Your task to perform on an android device: turn on airplane mode Image 0: 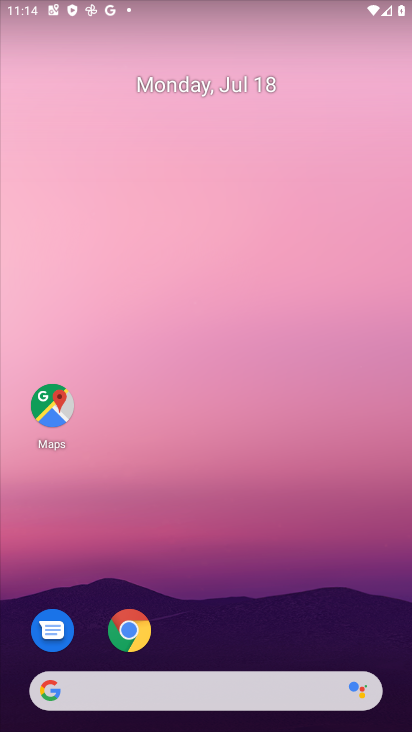
Step 0: drag from (273, 10) to (307, 606)
Your task to perform on an android device: turn on airplane mode Image 1: 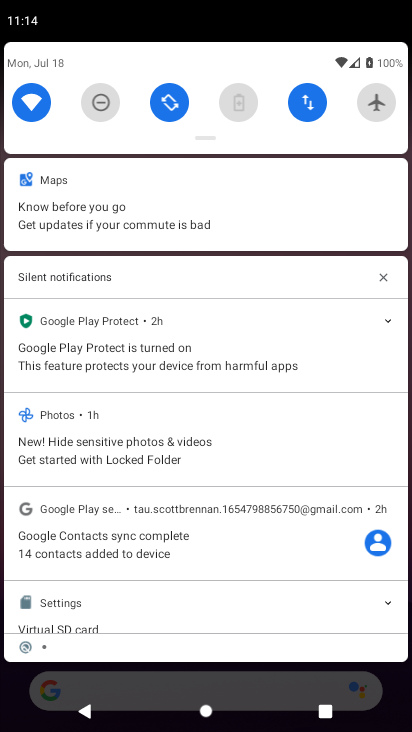
Step 1: click (377, 103)
Your task to perform on an android device: turn on airplane mode Image 2: 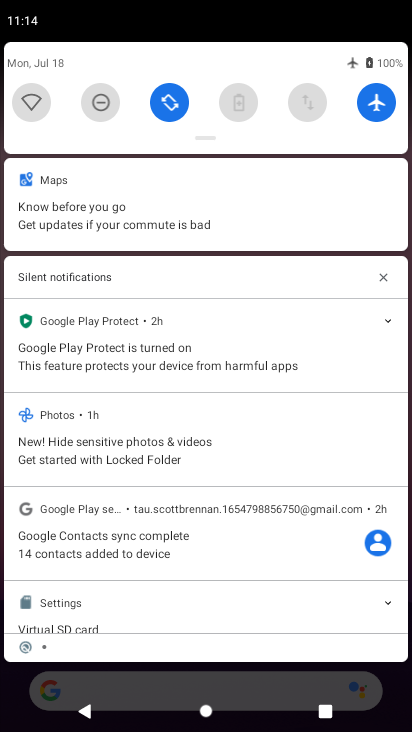
Step 2: task complete